Your task to perform on an android device: Toggle the flashlight Image 0: 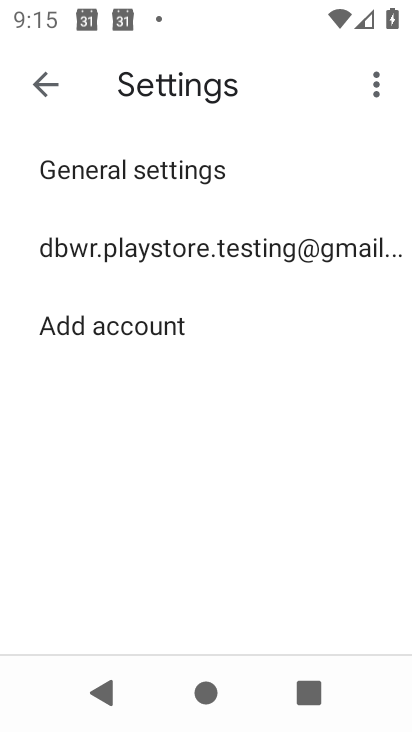
Step 0: press home button
Your task to perform on an android device: Toggle the flashlight Image 1: 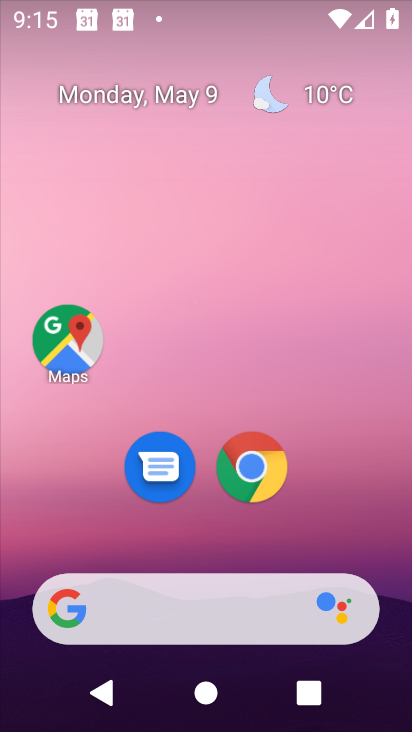
Step 1: task complete